Your task to perform on an android device: change the clock display to digital Image 0: 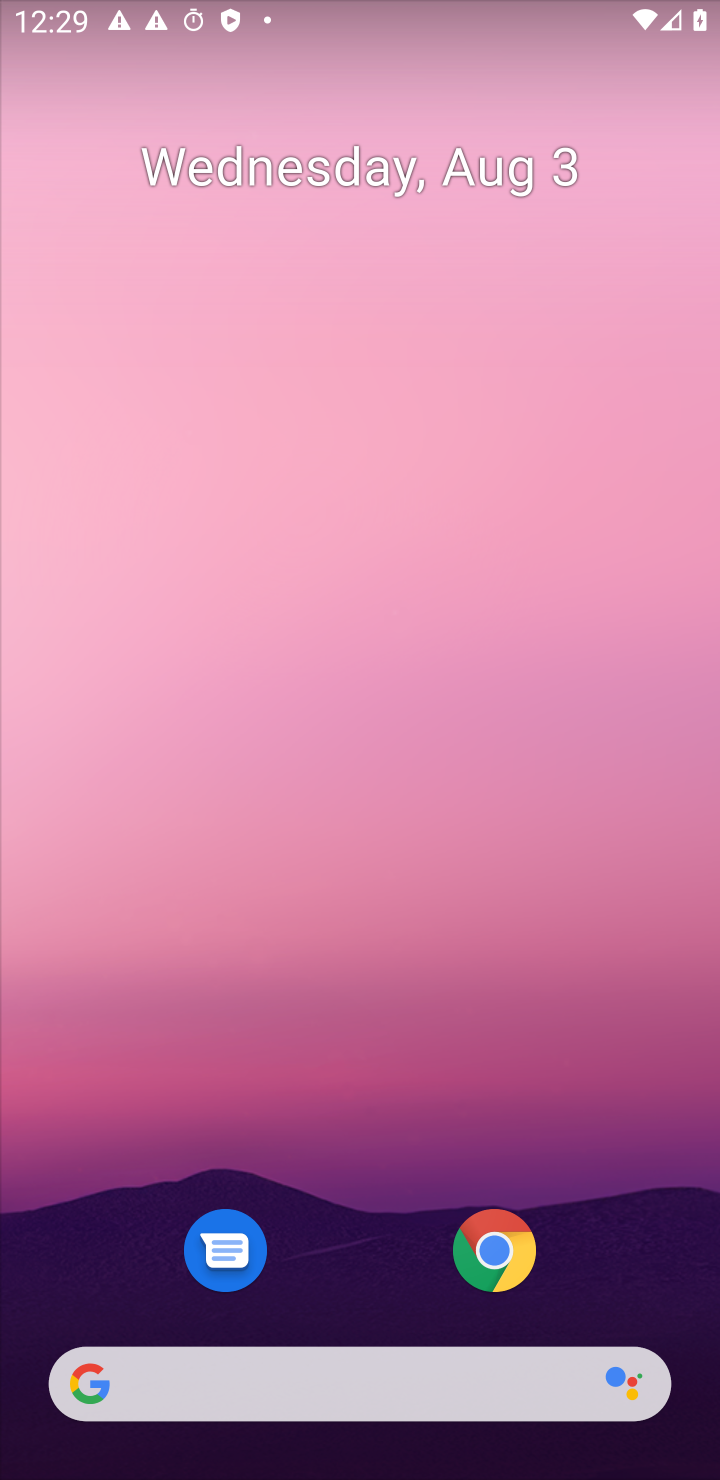
Step 0: drag from (379, 1206) to (333, 334)
Your task to perform on an android device: change the clock display to digital Image 1: 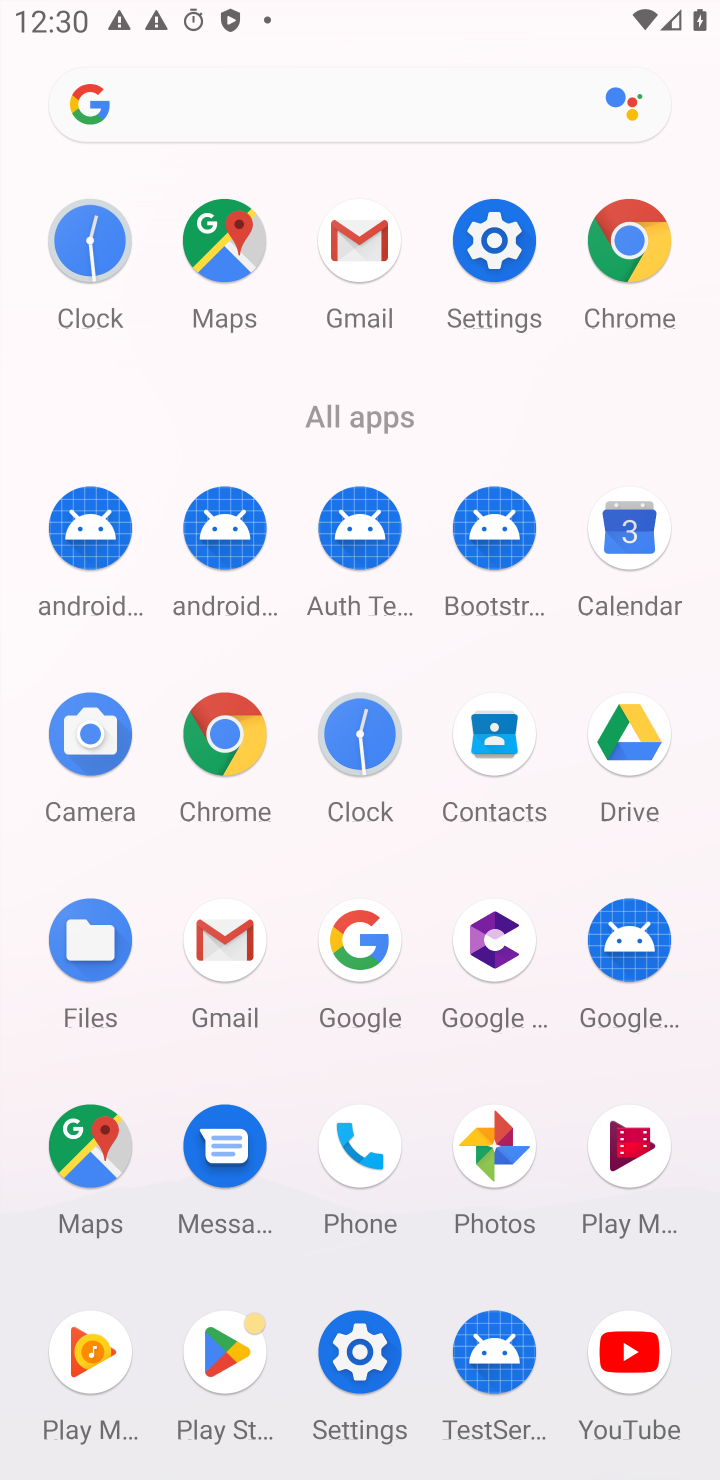
Step 1: click (82, 240)
Your task to perform on an android device: change the clock display to digital Image 2: 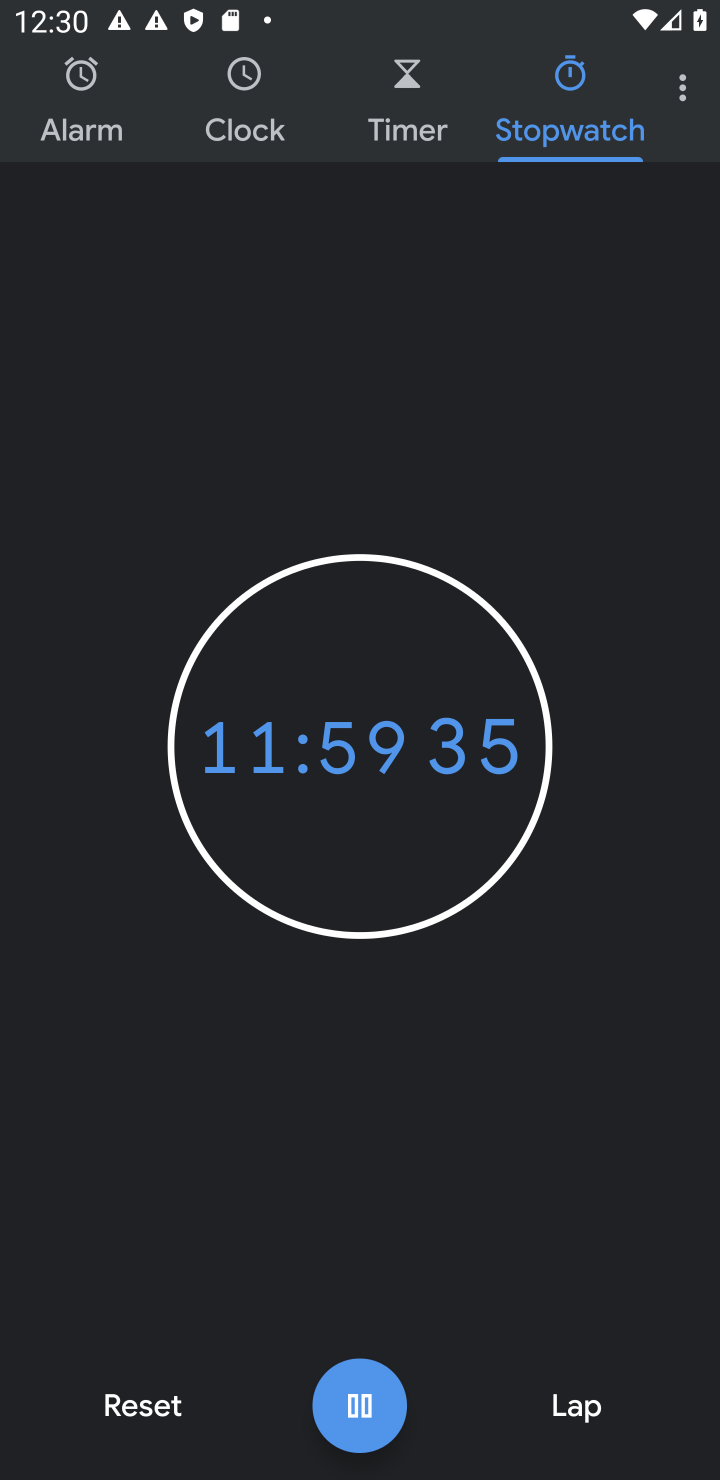
Step 2: click (675, 76)
Your task to perform on an android device: change the clock display to digital Image 3: 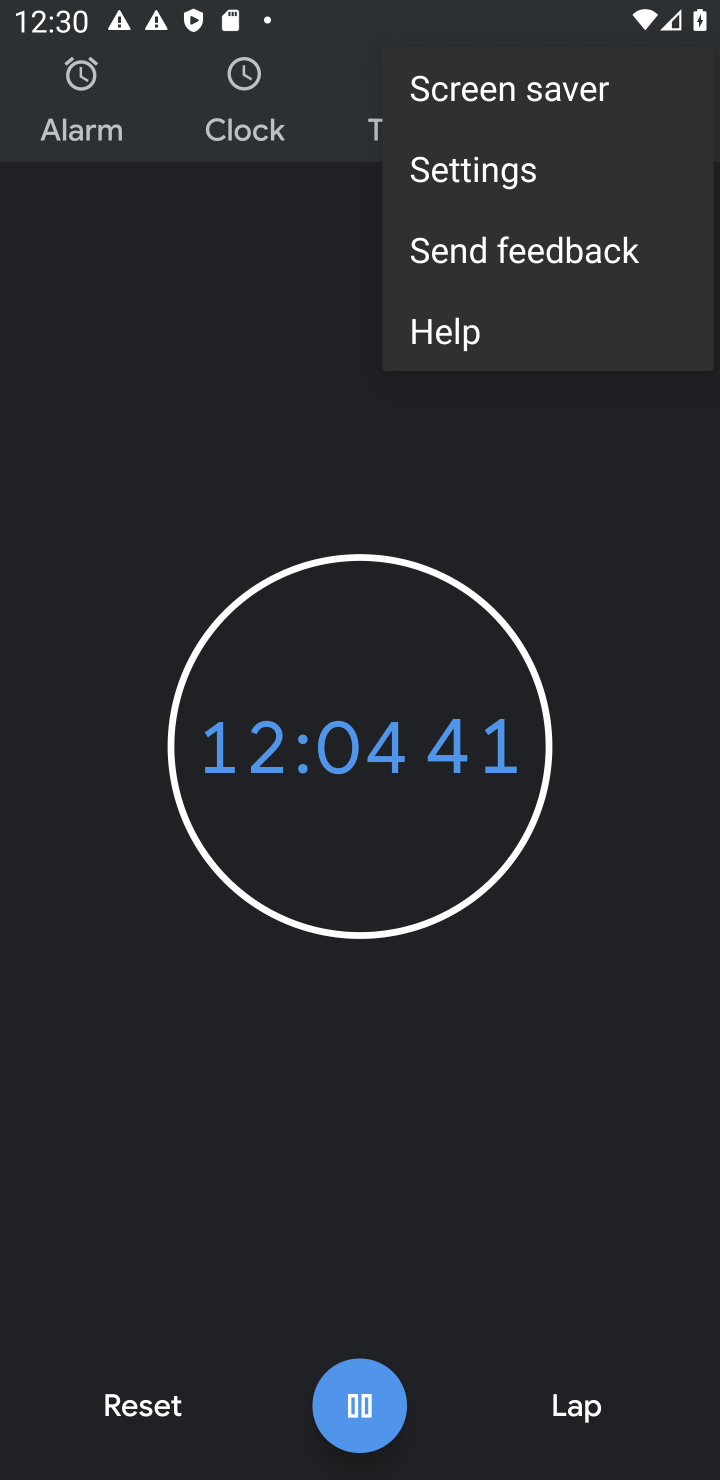
Step 3: click (505, 180)
Your task to perform on an android device: change the clock display to digital Image 4: 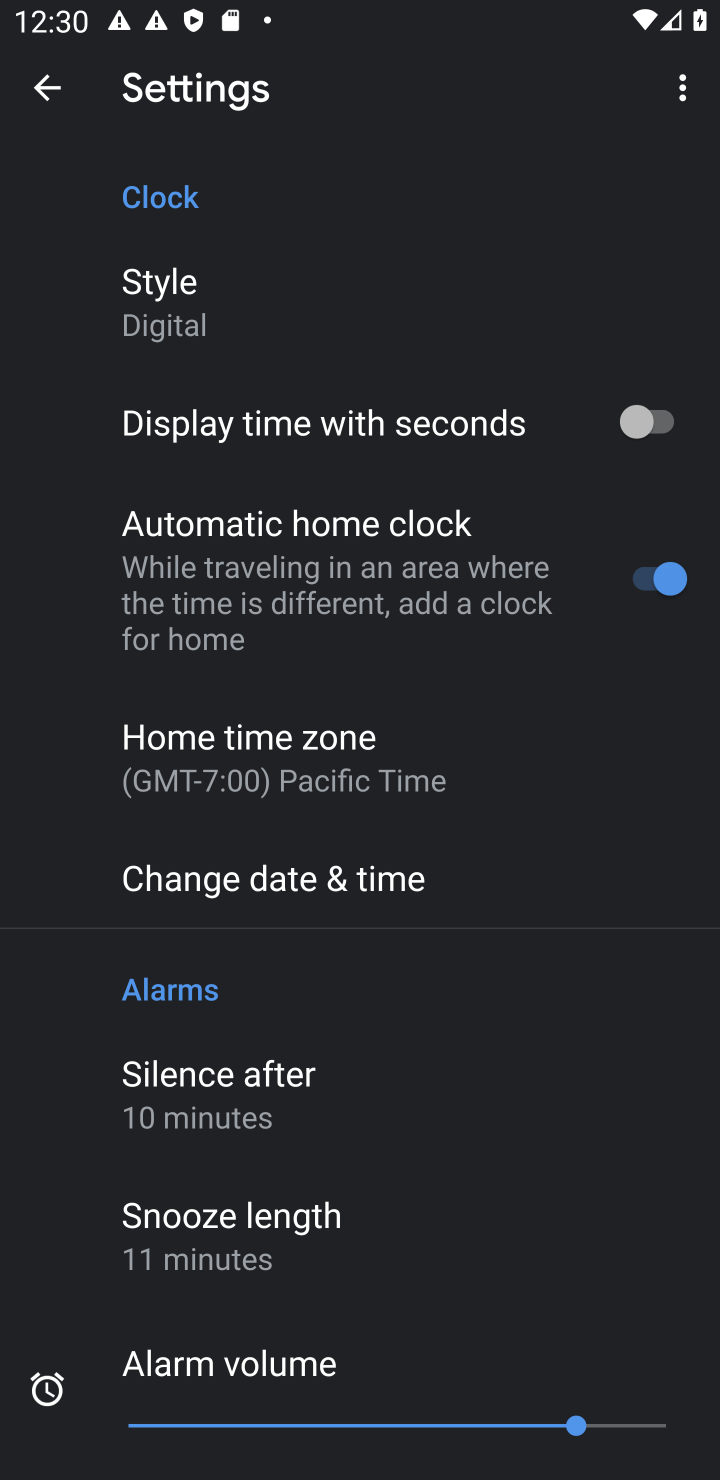
Step 4: click (192, 283)
Your task to perform on an android device: change the clock display to digital Image 5: 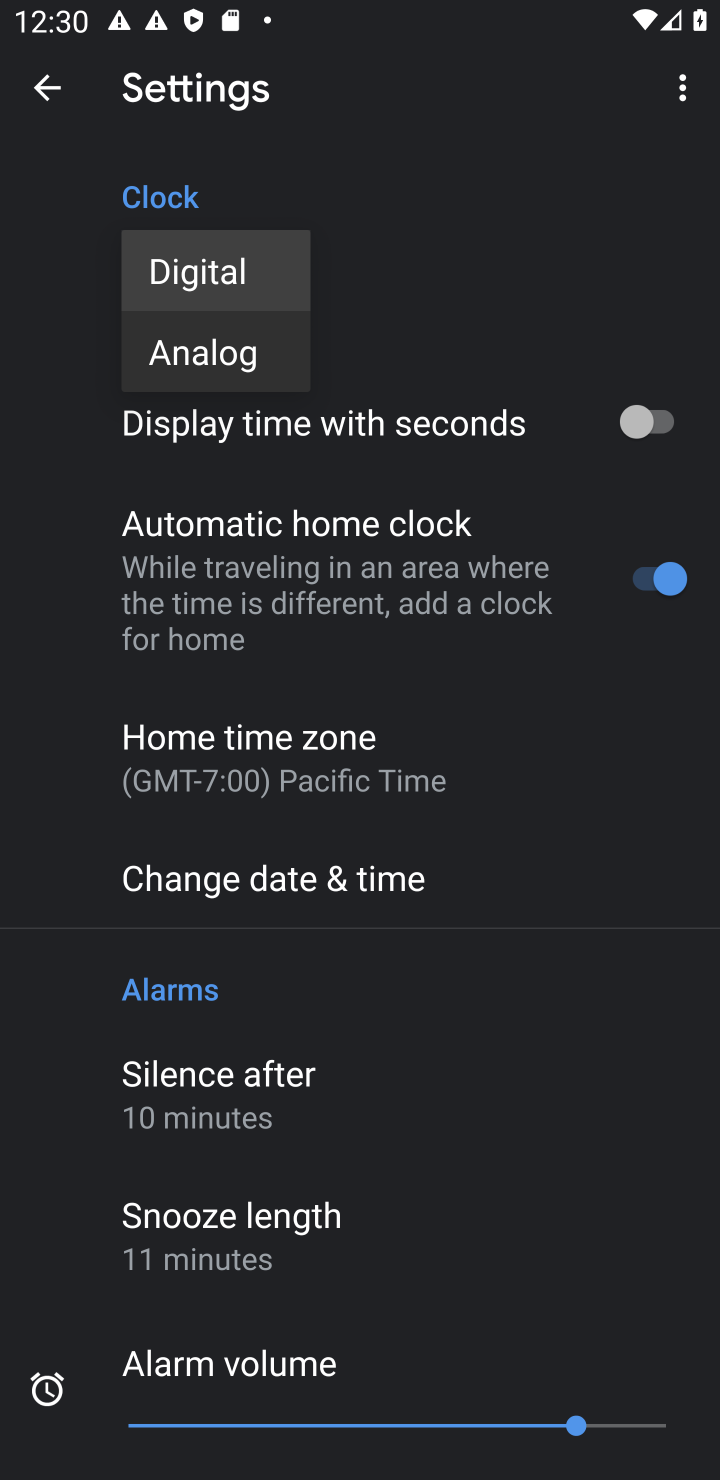
Step 5: click (290, 272)
Your task to perform on an android device: change the clock display to digital Image 6: 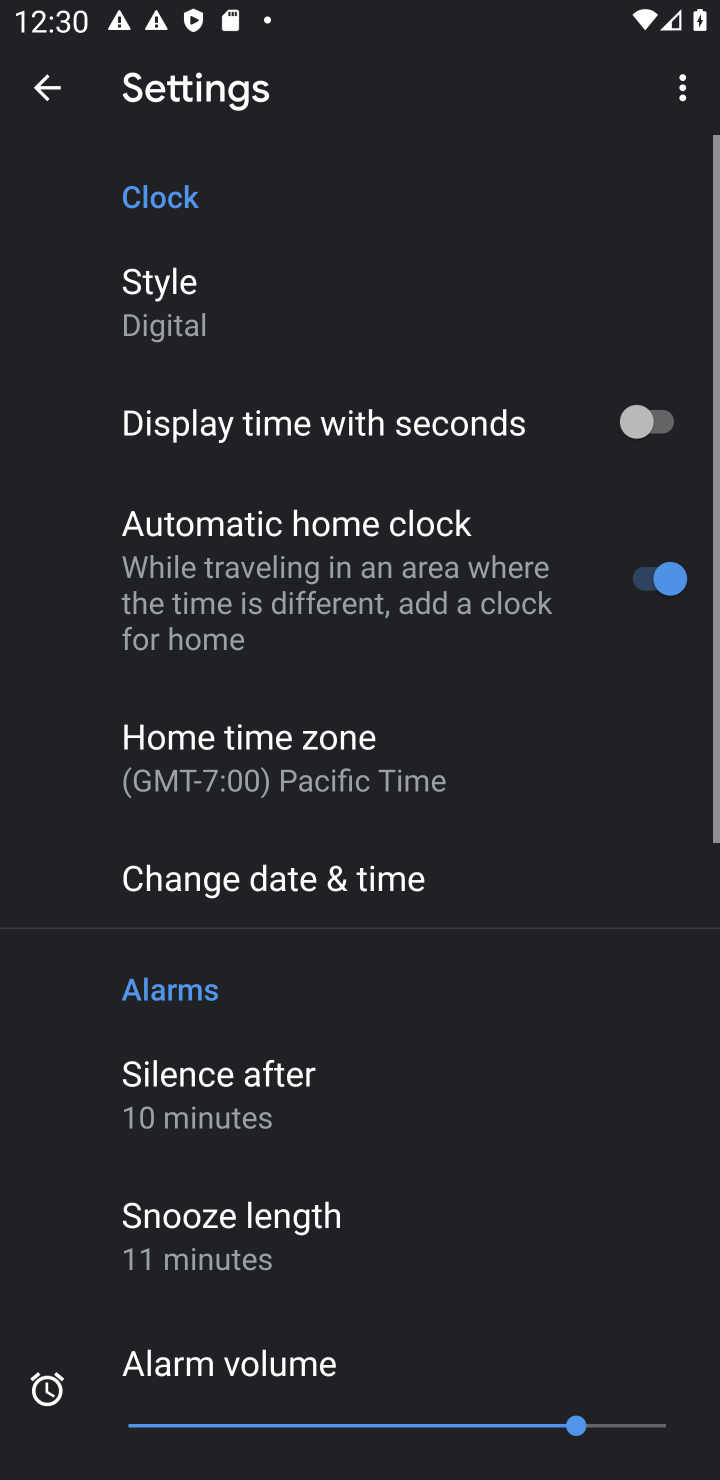
Step 6: task complete